Your task to perform on an android device: remove spam from my inbox in the gmail app Image 0: 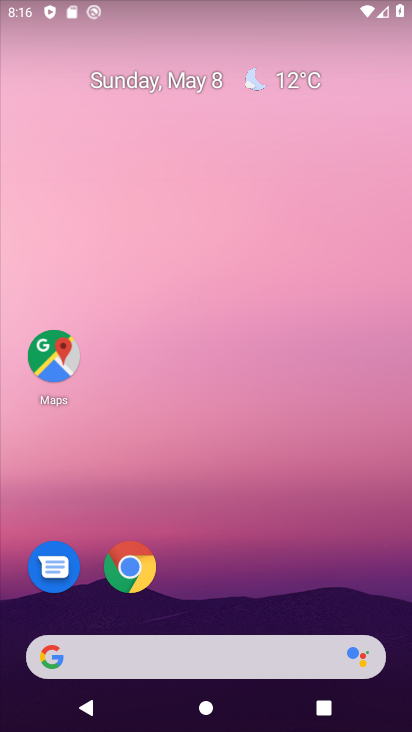
Step 0: drag from (334, 576) to (384, 96)
Your task to perform on an android device: remove spam from my inbox in the gmail app Image 1: 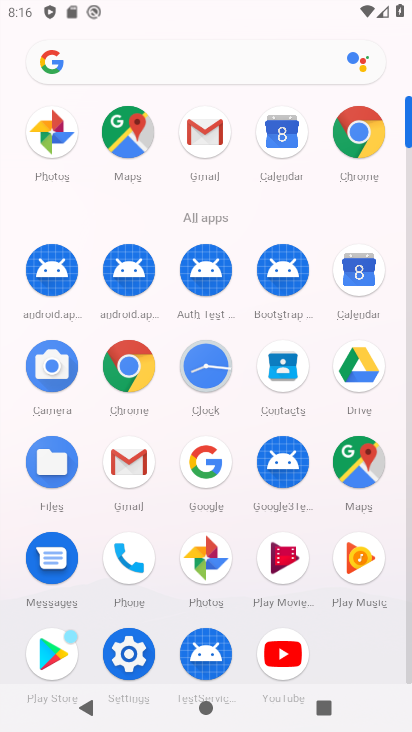
Step 1: click (197, 132)
Your task to perform on an android device: remove spam from my inbox in the gmail app Image 2: 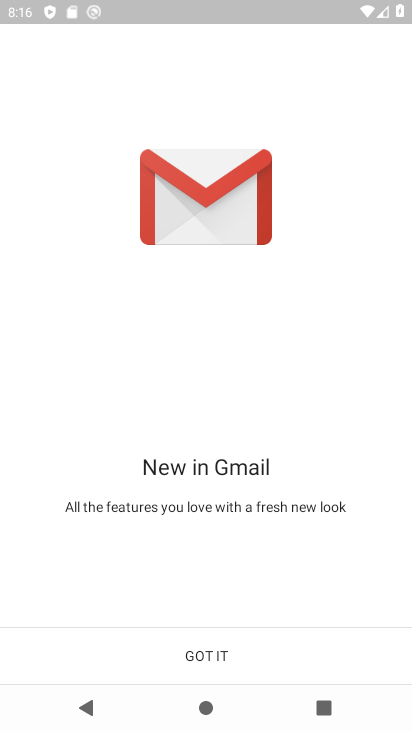
Step 2: click (232, 657)
Your task to perform on an android device: remove spam from my inbox in the gmail app Image 3: 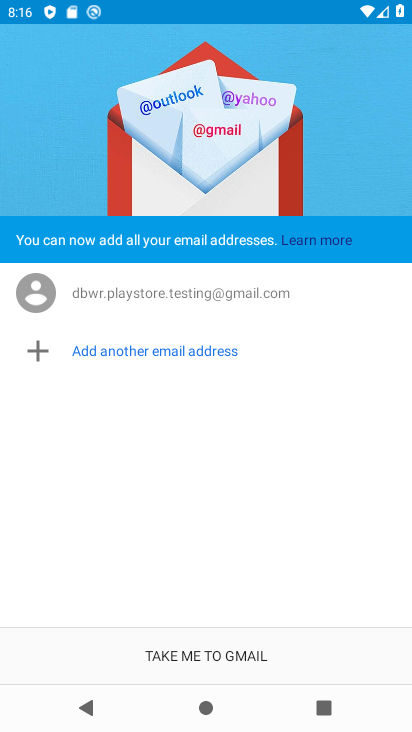
Step 3: click (232, 657)
Your task to perform on an android device: remove spam from my inbox in the gmail app Image 4: 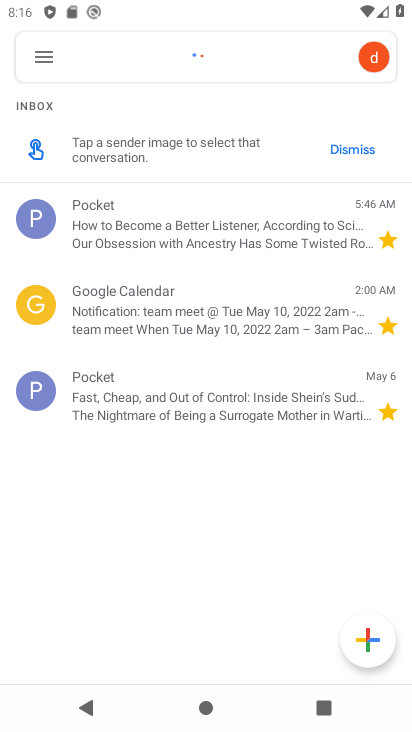
Step 4: click (49, 66)
Your task to perform on an android device: remove spam from my inbox in the gmail app Image 5: 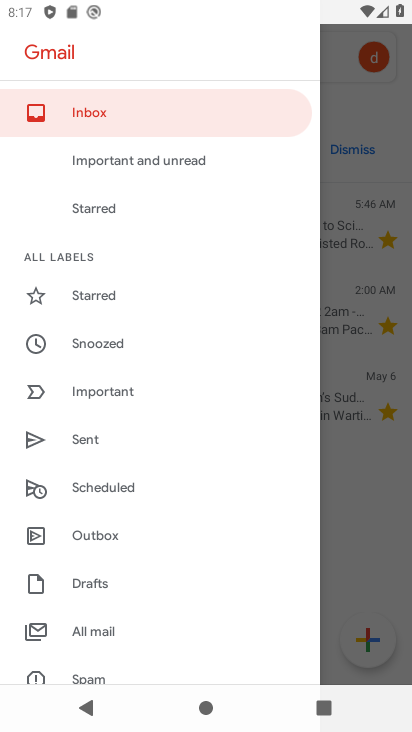
Step 5: drag from (162, 588) to (208, 244)
Your task to perform on an android device: remove spam from my inbox in the gmail app Image 6: 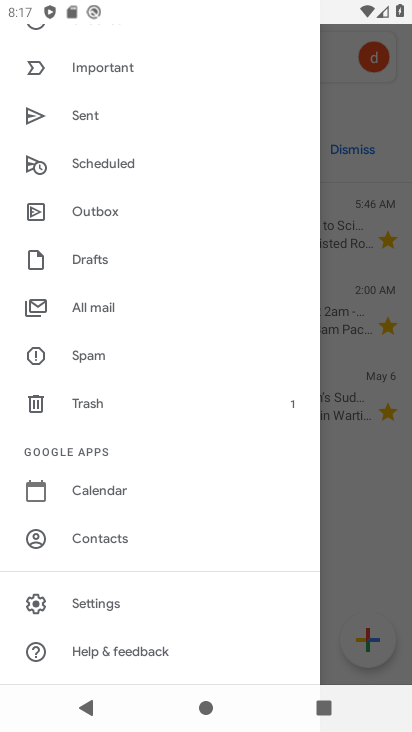
Step 6: click (73, 398)
Your task to perform on an android device: remove spam from my inbox in the gmail app Image 7: 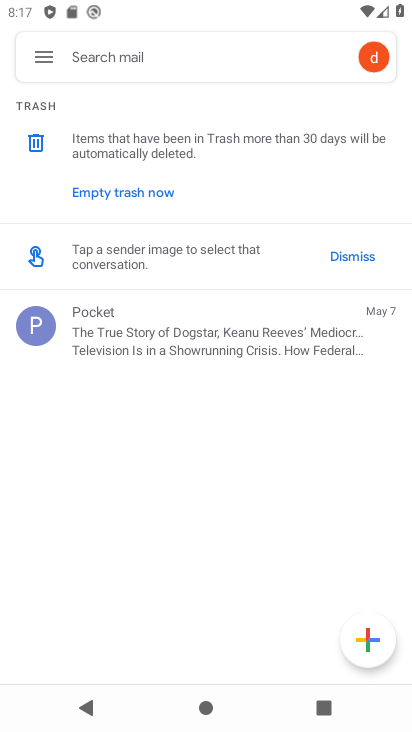
Step 7: click (123, 184)
Your task to perform on an android device: remove spam from my inbox in the gmail app Image 8: 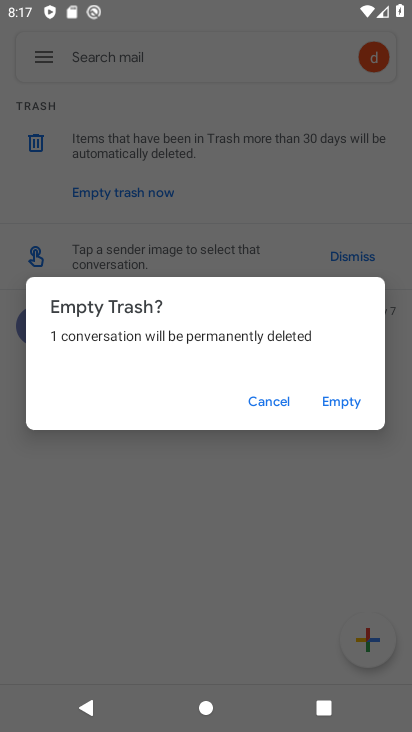
Step 8: click (350, 401)
Your task to perform on an android device: remove spam from my inbox in the gmail app Image 9: 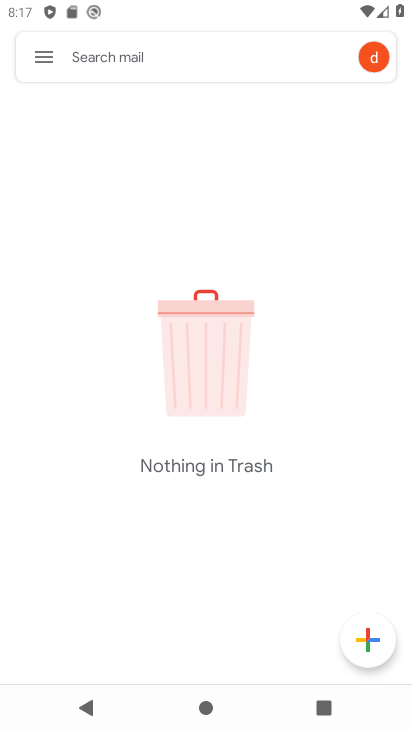
Step 9: task complete